Your task to perform on an android device: Open eBay Image 0: 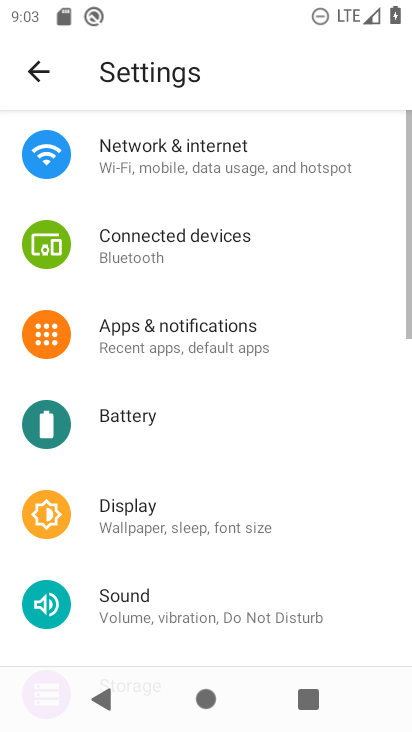
Step 0: click (264, 513)
Your task to perform on an android device: Open eBay Image 1: 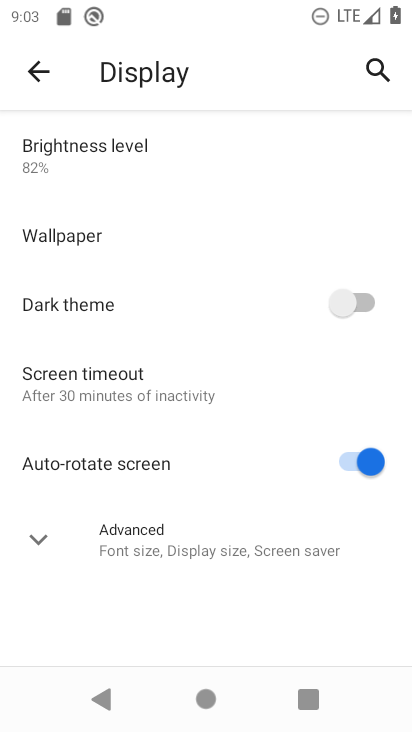
Step 1: press home button
Your task to perform on an android device: Open eBay Image 2: 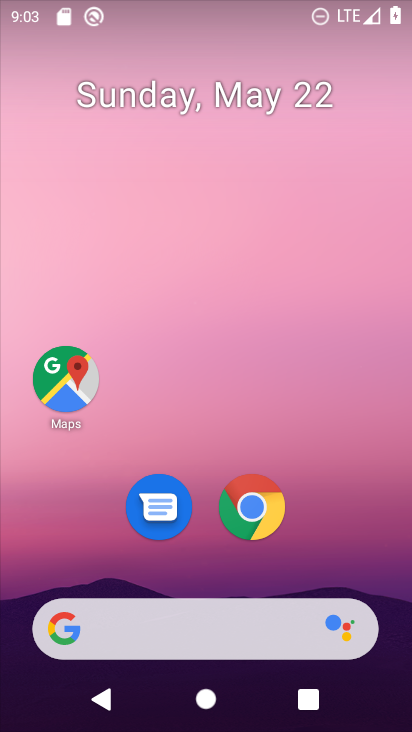
Step 2: click (176, 607)
Your task to perform on an android device: Open eBay Image 3: 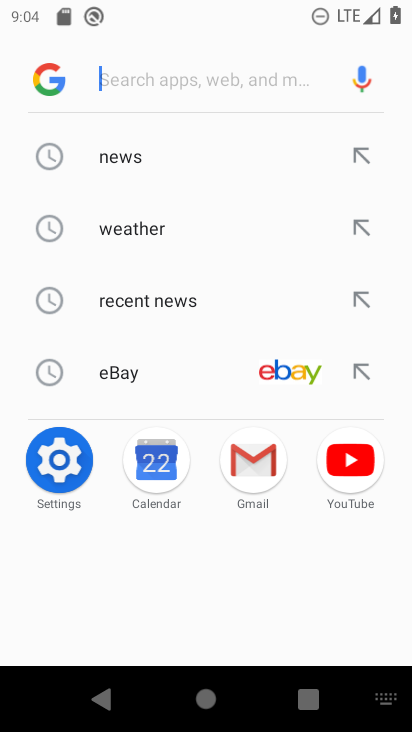
Step 3: click (303, 373)
Your task to perform on an android device: Open eBay Image 4: 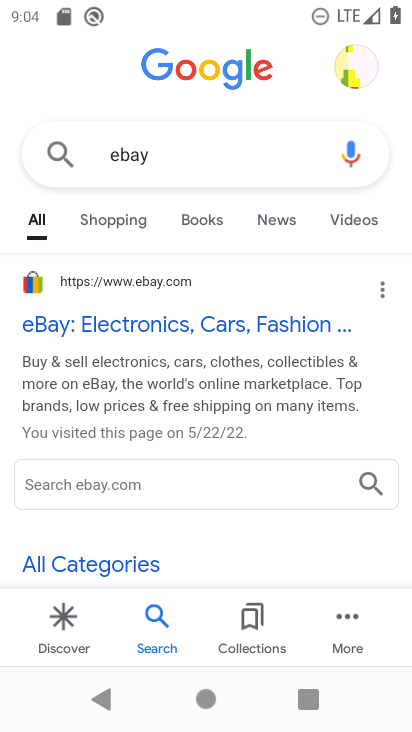
Step 4: click (147, 275)
Your task to perform on an android device: Open eBay Image 5: 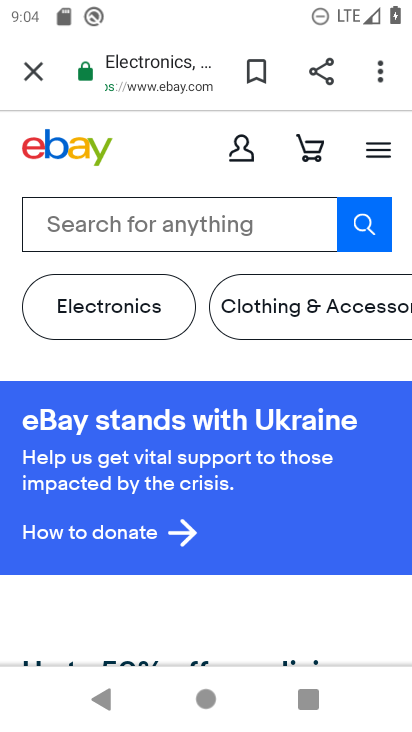
Step 5: task complete